Your task to perform on an android device: change the clock style Image 0: 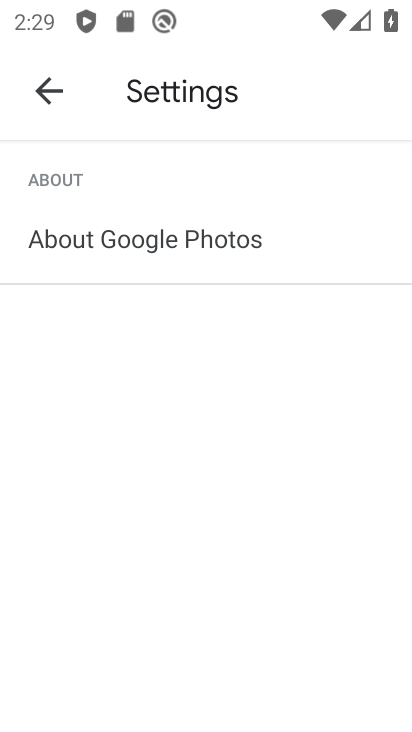
Step 0: press home button
Your task to perform on an android device: change the clock style Image 1: 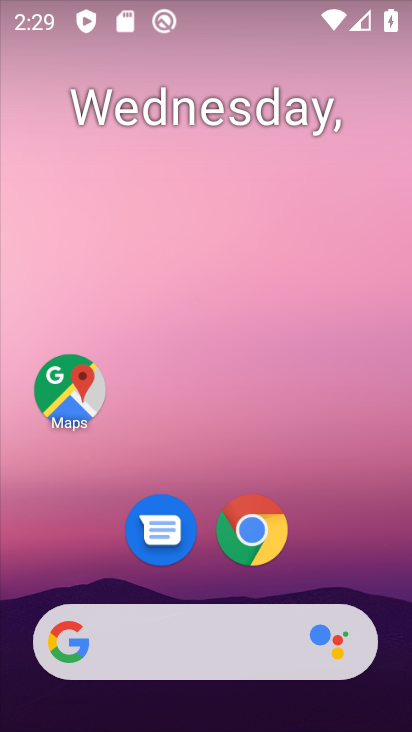
Step 1: drag from (204, 661) to (218, 172)
Your task to perform on an android device: change the clock style Image 2: 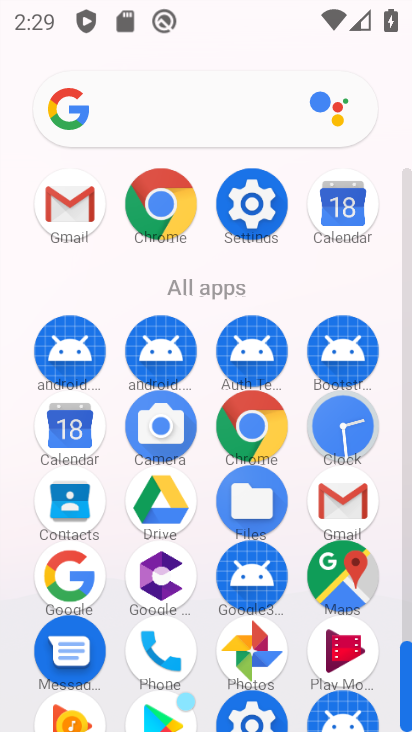
Step 2: click (351, 409)
Your task to perform on an android device: change the clock style Image 3: 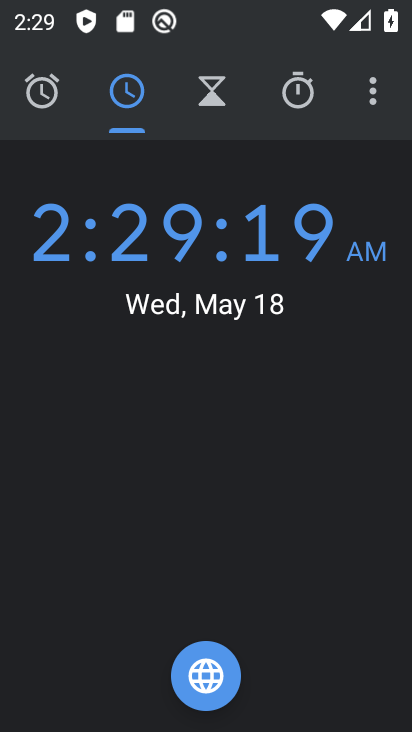
Step 3: click (364, 96)
Your task to perform on an android device: change the clock style Image 4: 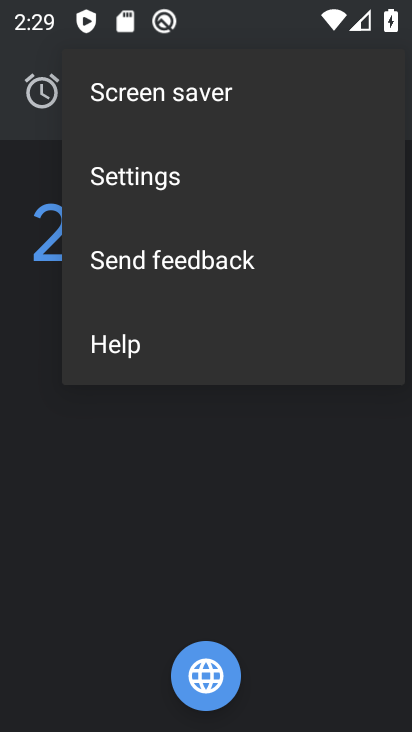
Step 4: click (160, 165)
Your task to perform on an android device: change the clock style Image 5: 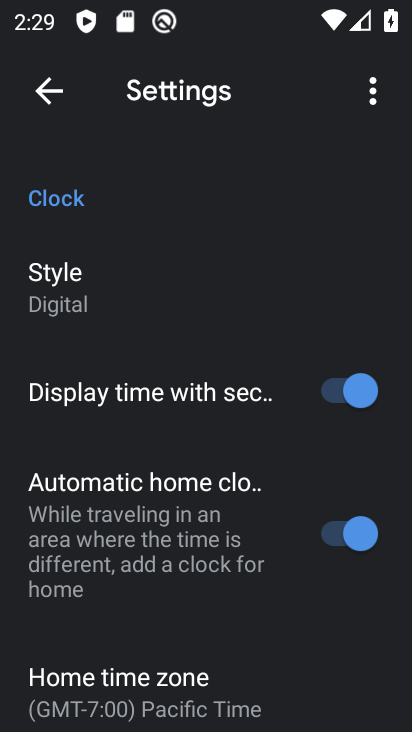
Step 5: click (86, 286)
Your task to perform on an android device: change the clock style Image 6: 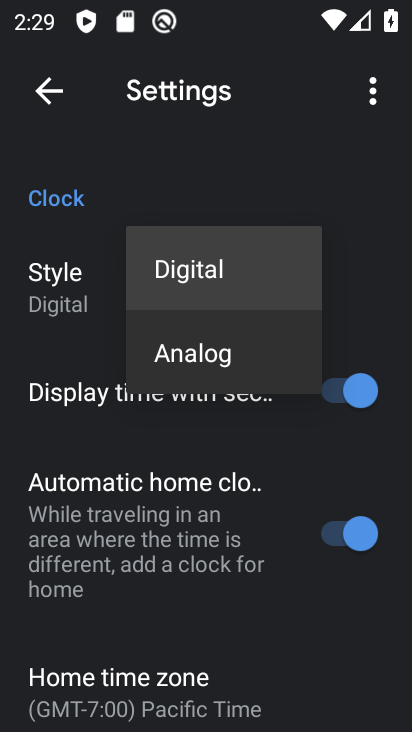
Step 6: click (189, 351)
Your task to perform on an android device: change the clock style Image 7: 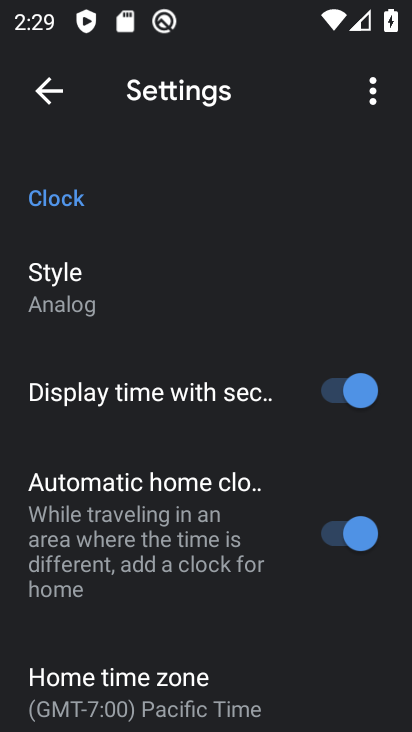
Step 7: task complete